Your task to perform on an android device: What's the weather going to be tomorrow? Image 0: 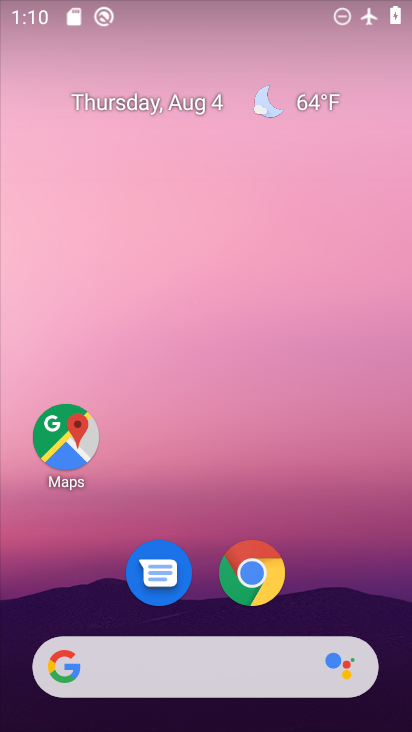
Step 0: drag from (336, 564) to (292, 161)
Your task to perform on an android device: What's the weather going to be tomorrow? Image 1: 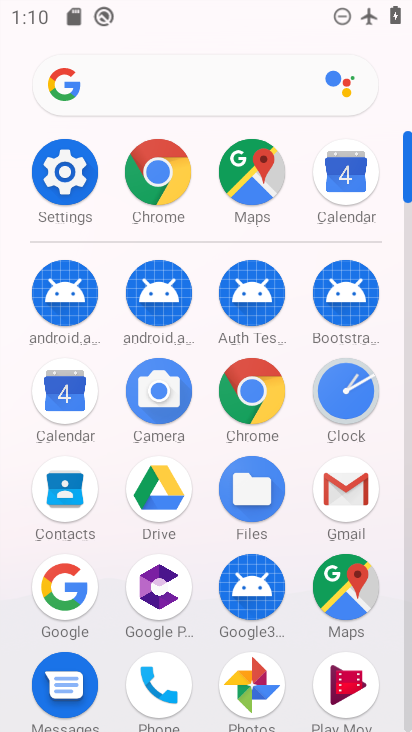
Step 1: press home button
Your task to perform on an android device: What's the weather going to be tomorrow? Image 2: 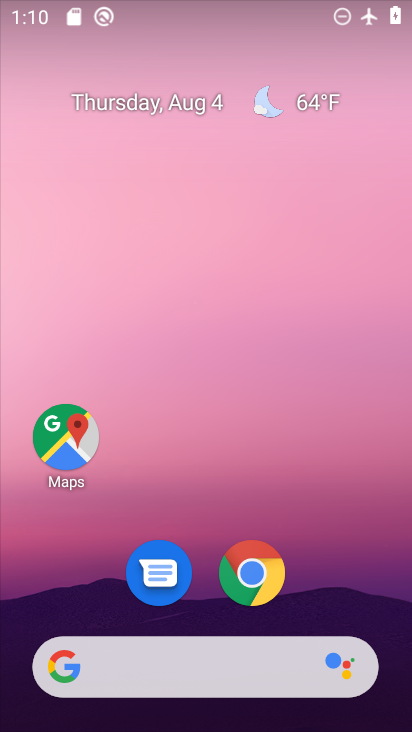
Step 2: click (307, 97)
Your task to perform on an android device: What's the weather going to be tomorrow? Image 3: 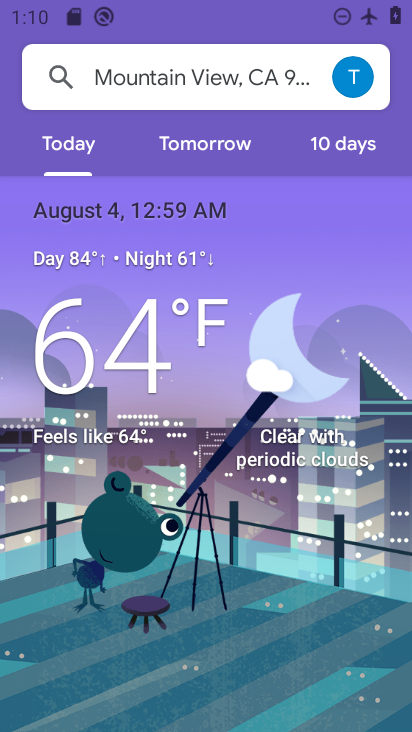
Step 3: click (219, 154)
Your task to perform on an android device: What's the weather going to be tomorrow? Image 4: 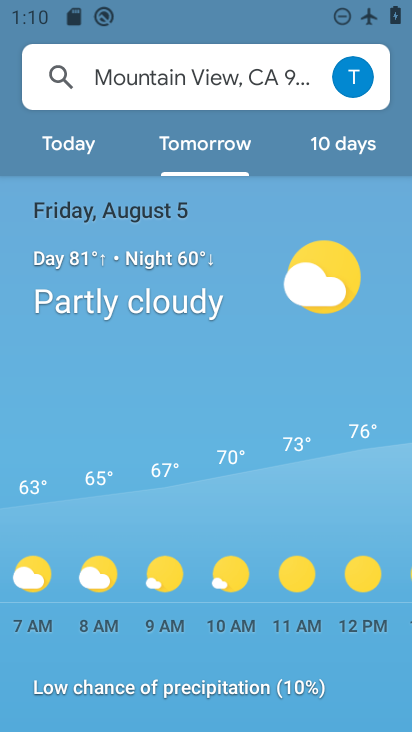
Step 4: task complete